Your task to perform on an android device: Search for a storage ottoman in the living room Image 0: 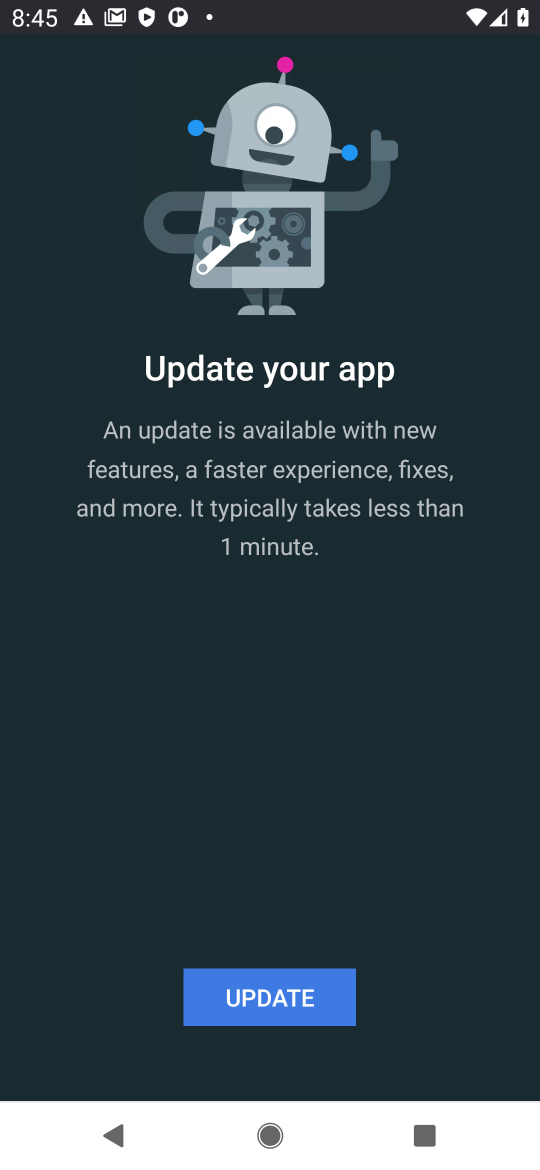
Step 0: press home button
Your task to perform on an android device: Search for a storage ottoman in the living room Image 1: 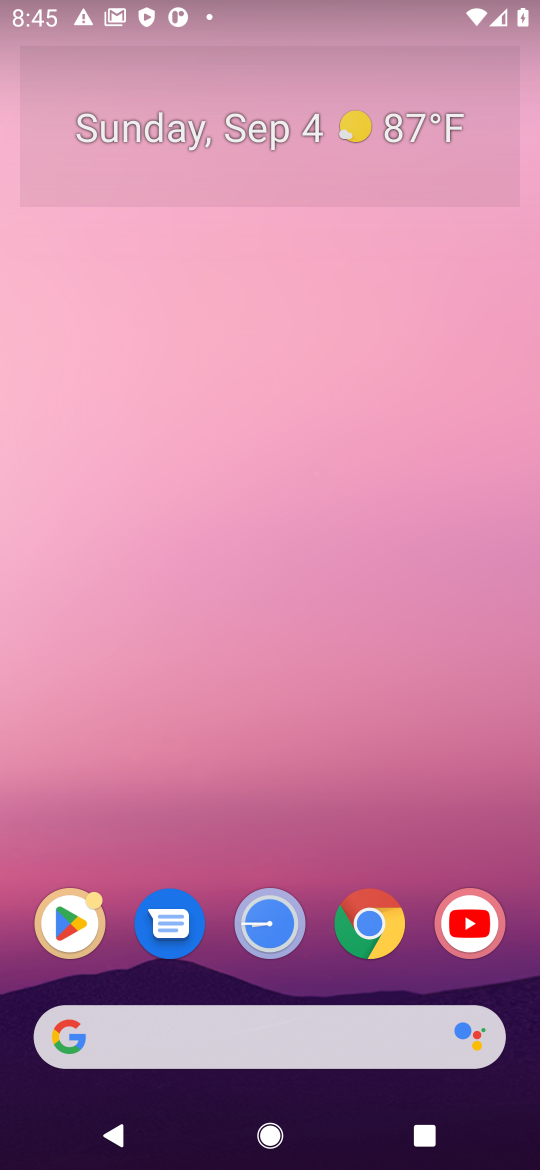
Step 1: click (351, 1039)
Your task to perform on an android device: Search for a storage ottoman in the living room Image 2: 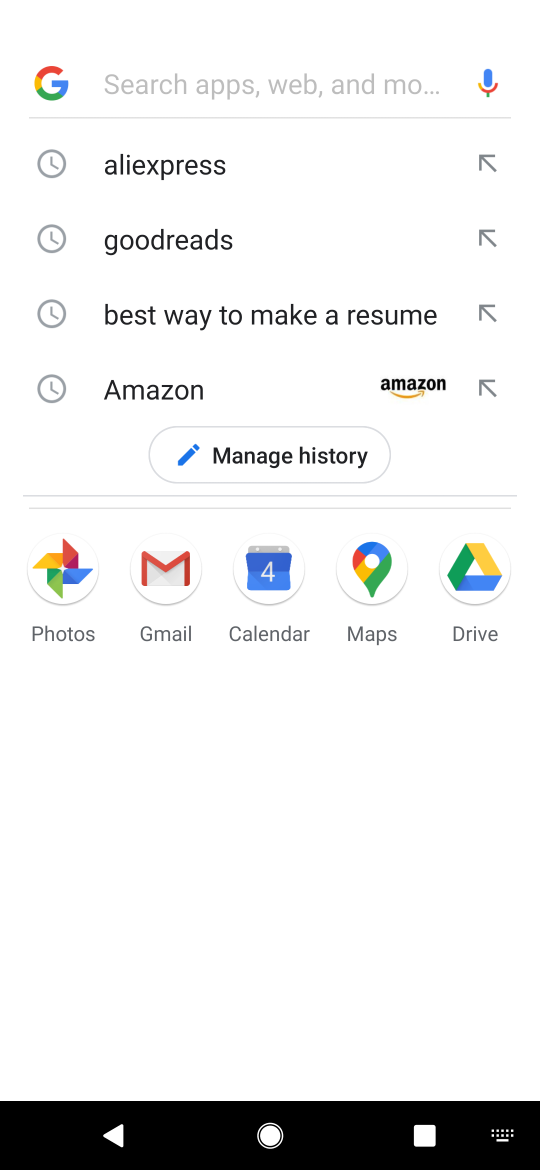
Step 2: press enter
Your task to perform on an android device: Search for a storage ottoman in the living room Image 3: 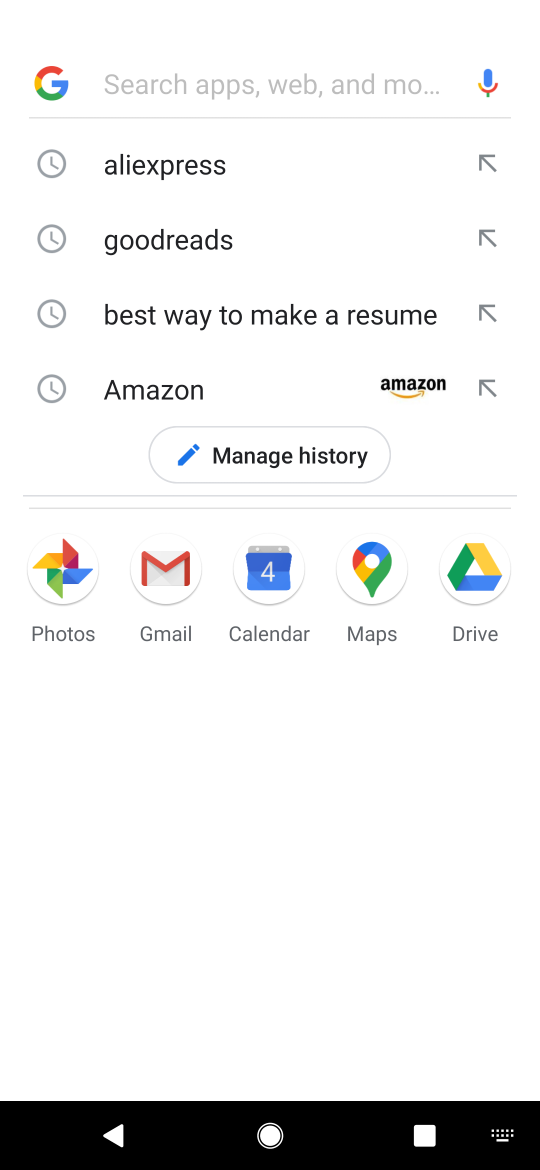
Step 3: type "storage ottoman in the living room"
Your task to perform on an android device: Search for a storage ottoman in the living room Image 4: 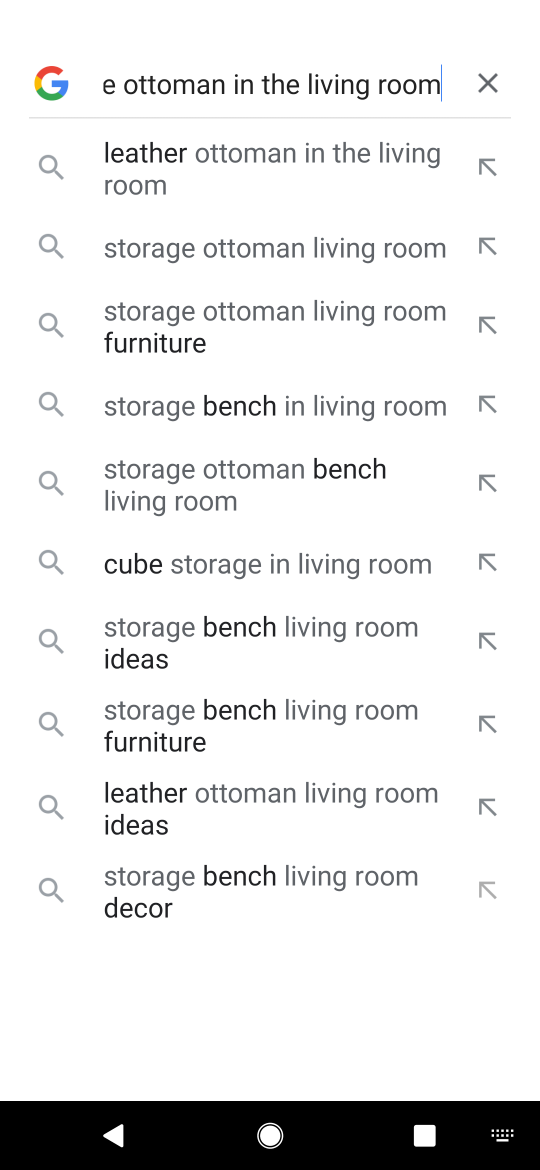
Step 4: click (228, 161)
Your task to perform on an android device: Search for a storage ottoman in the living room Image 5: 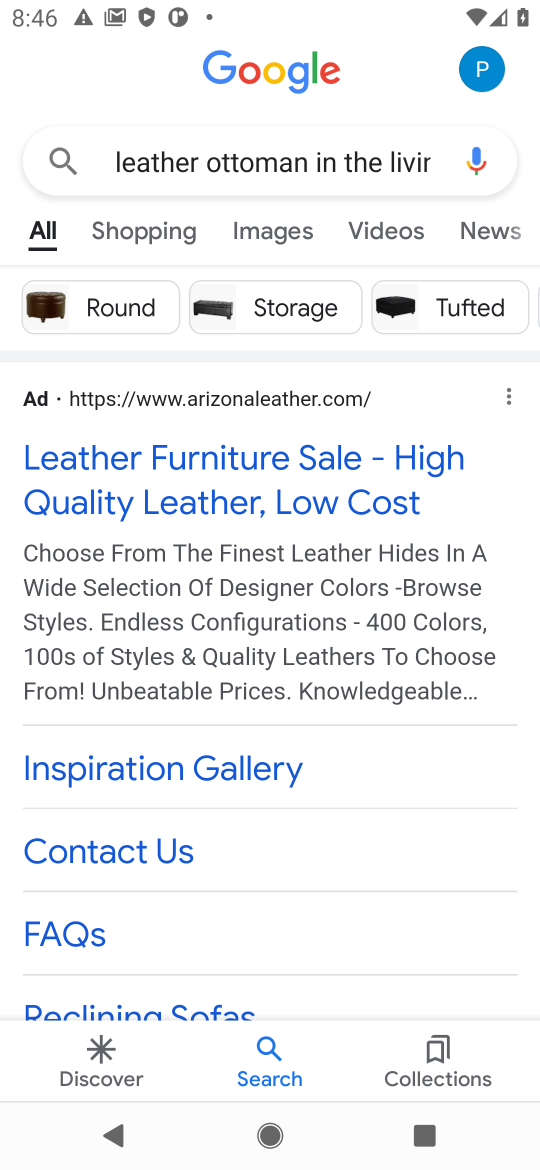
Step 5: task complete